Your task to perform on an android device: Go to internet settings Image 0: 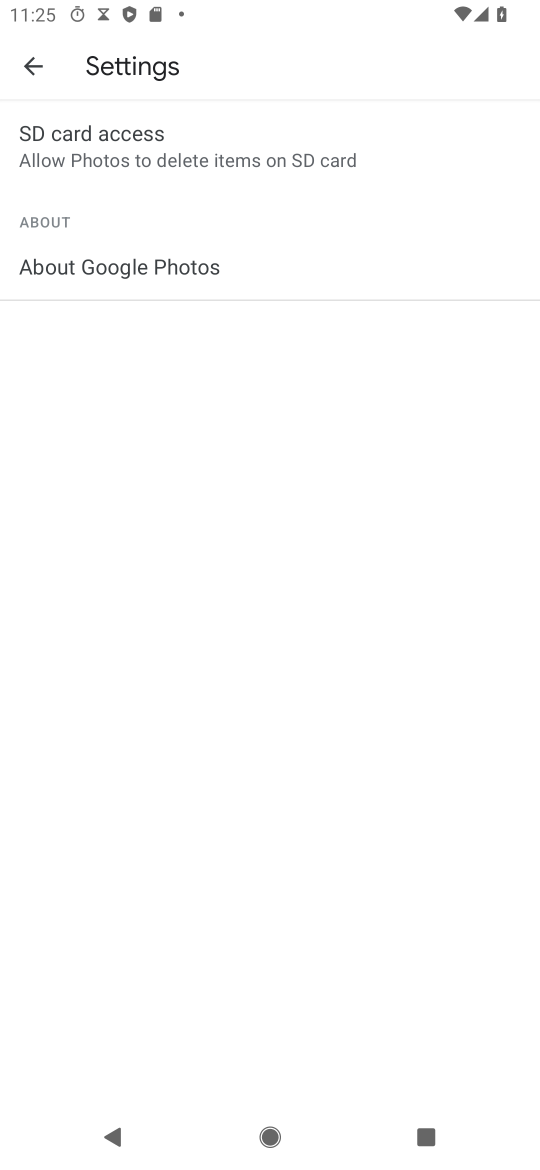
Step 0: press home button
Your task to perform on an android device: Go to internet settings Image 1: 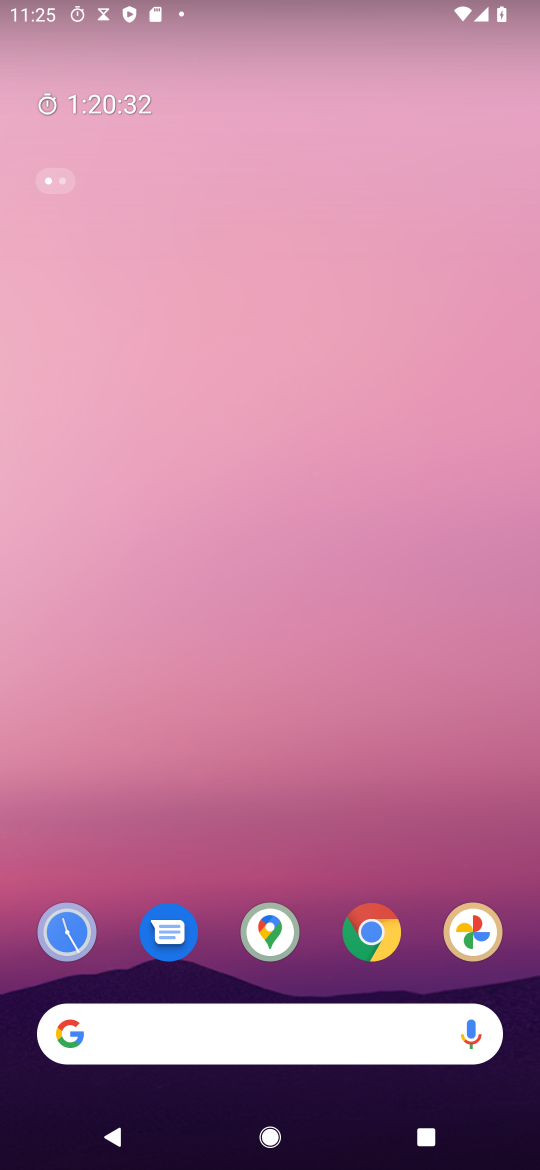
Step 1: drag from (403, 859) to (299, 138)
Your task to perform on an android device: Go to internet settings Image 2: 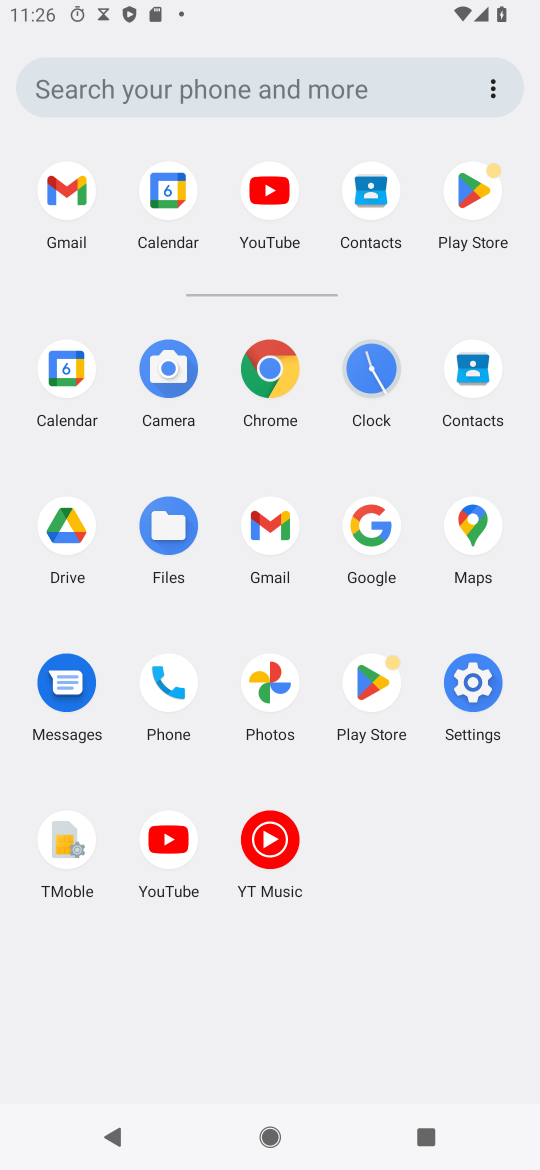
Step 2: click (475, 707)
Your task to perform on an android device: Go to internet settings Image 3: 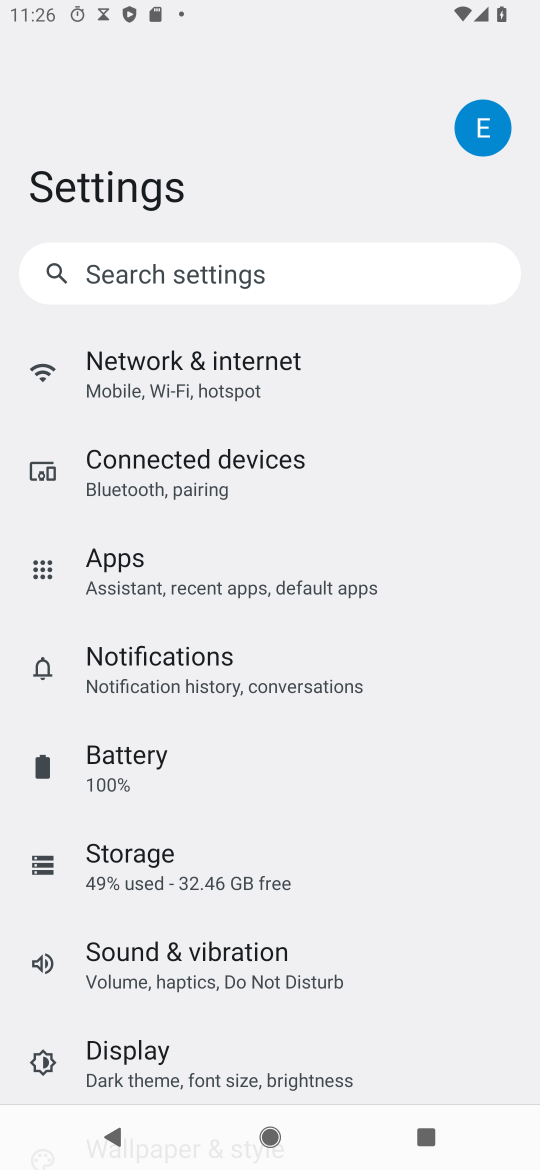
Step 3: drag from (295, 1043) to (270, 898)
Your task to perform on an android device: Go to internet settings Image 4: 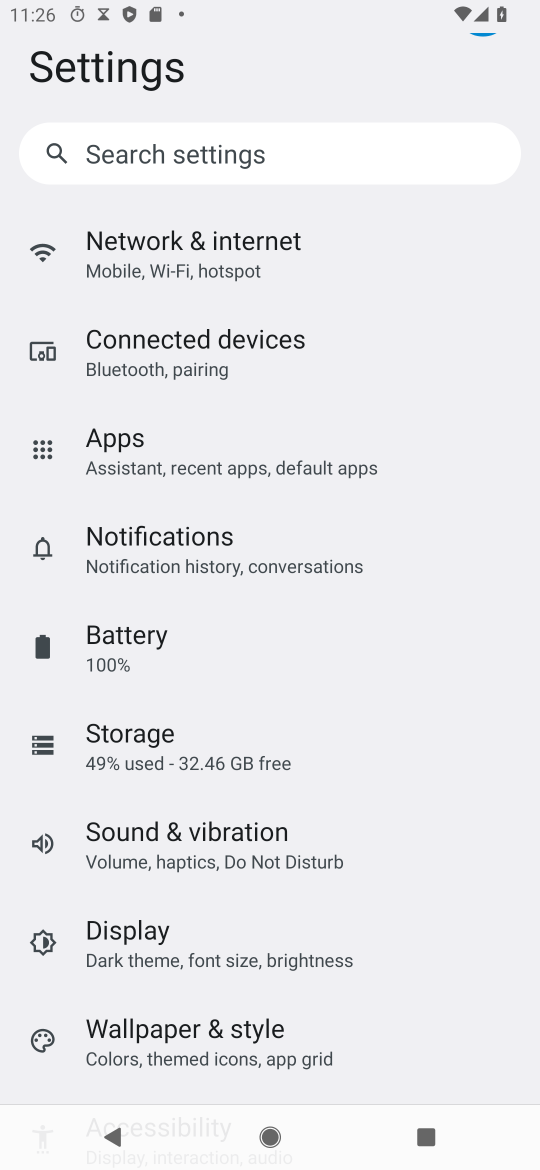
Step 4: click (240, 265)
Your task to perform on an android device: Go to internet settings Image 5: 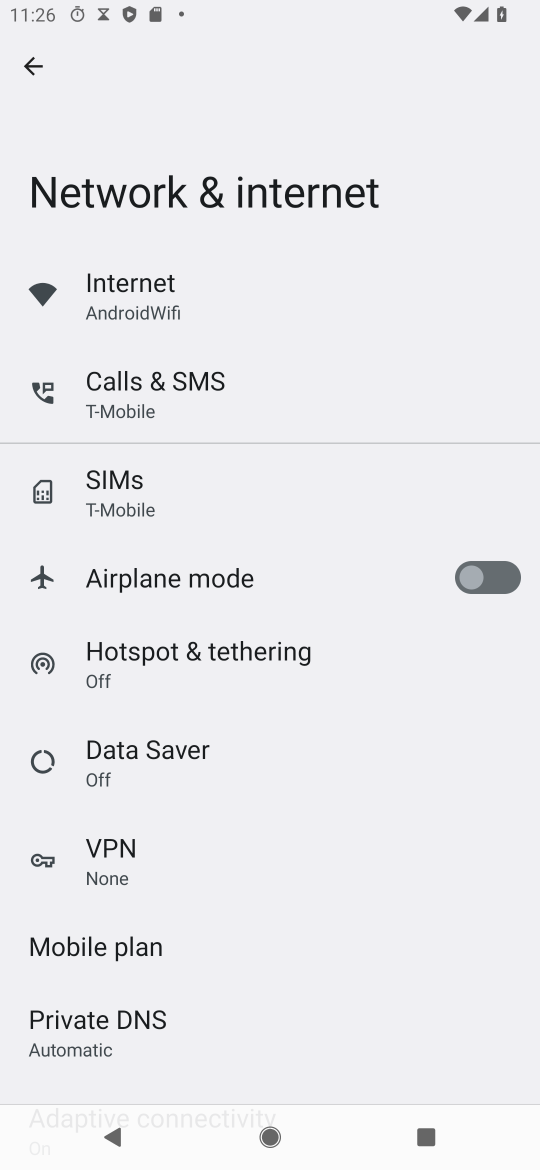
Step 5: click (220, 322)
Your task to perform on an android device: Go to internet settings Image 6: 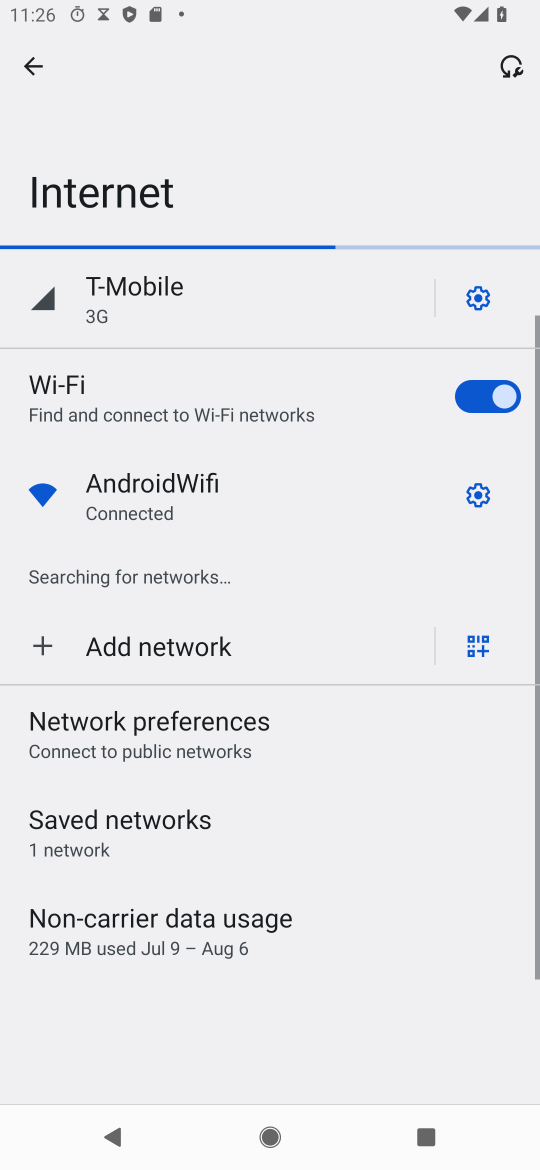
Step 6: task complete